Your task to perform on an android device: toggle sleep mode Image 0: 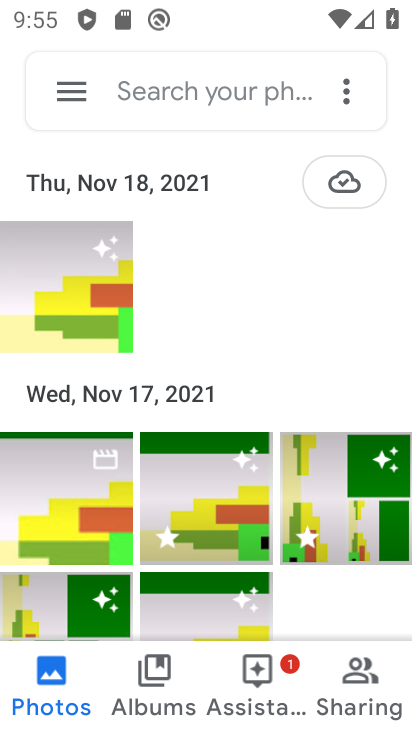
Step 0: press home button
Your task to perform on an android device: toggle sleep mode Image 1: 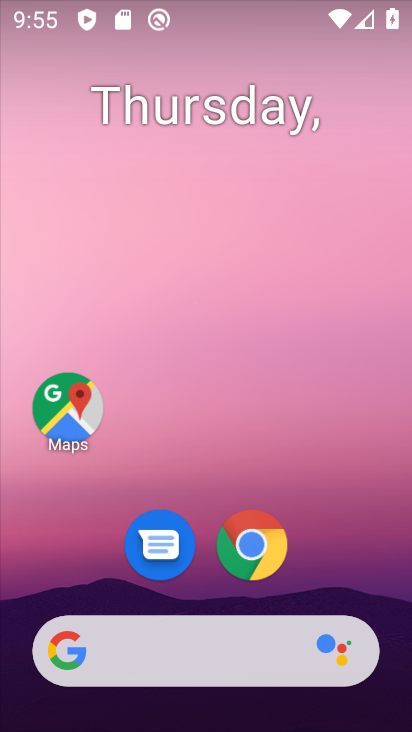
Step 1: drag from (333, 556) to (241, 164)
Your task to perform on an android device: toggle sleep mode Image 2: 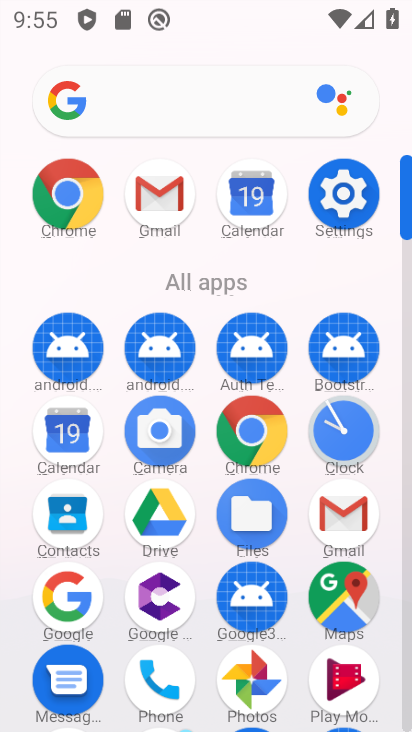
Step 2: click (342, 192)
Your task to perform on an android device: toggle sleep mode Image 3: 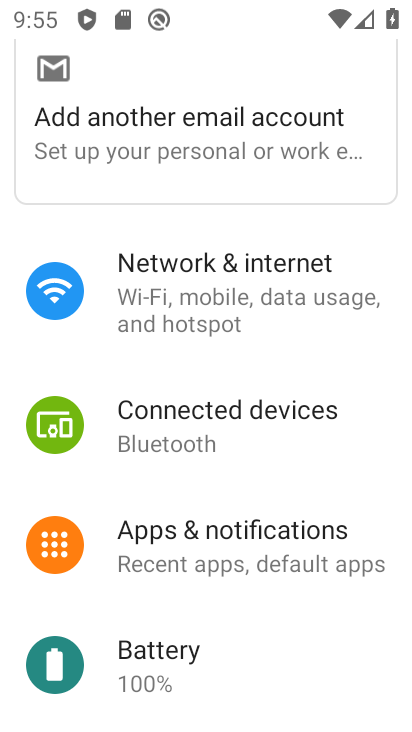
Step 3: drag from (189, 442) to (242, 365)
Your task to perform on an android device: toggle sleep mode Image 4: 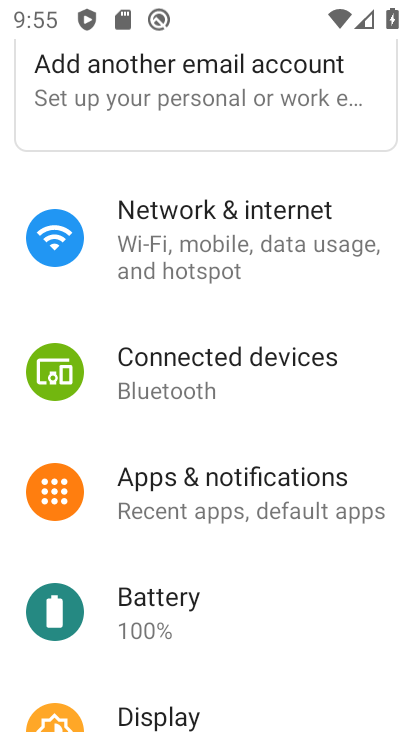
Step 4: drag from (201, 557) to (287, 445)
Your task to perform on an android device: toggle sleep mode Image 5: 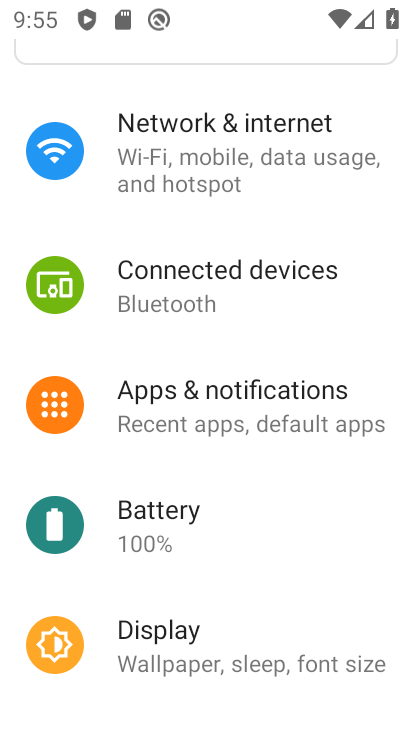
Step 5: drag from (245, 538) to (281, 401)
Your task to perform on an android device: toggle sleep mode Image 6: 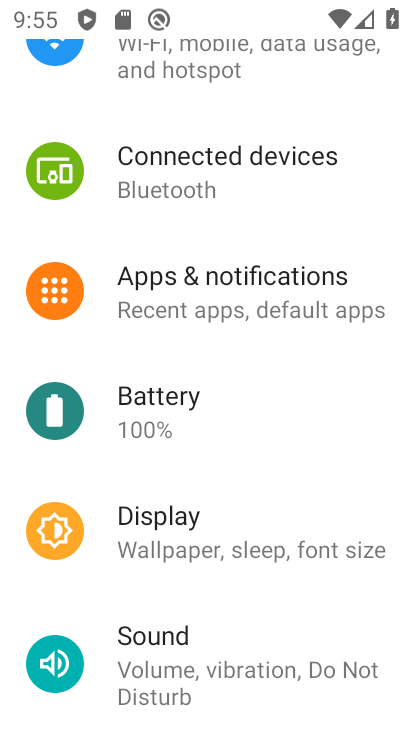
Step 6: drag from (223, 459) to (245, 341)
Your task to perform on an android device: toggle sleep mode Image 7: 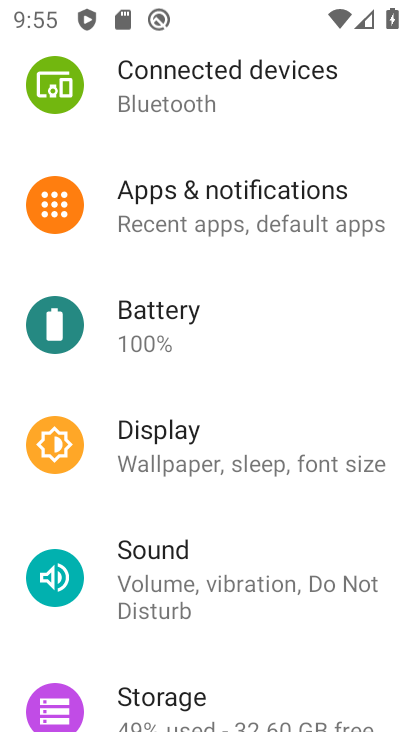
Step 7: click (287, 466)
Your task to perform on an android device: toggle sleep mode Image 8: 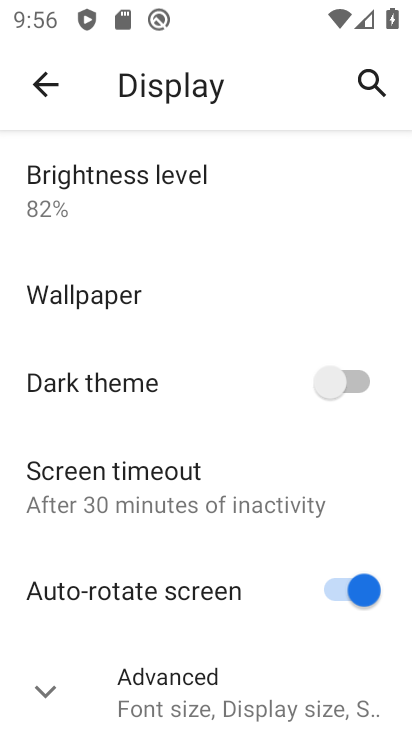
Step 8: drag from (191, 595) to (219, 364)
Your task to perform on an android device: toggle sleep mode Image 9: 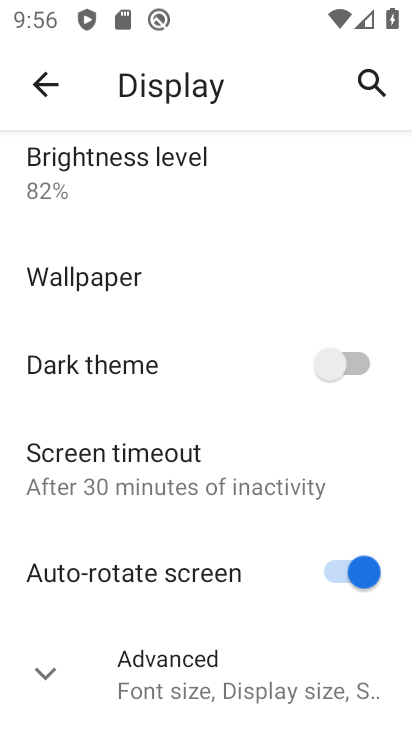
Step 9: click (211, 672)
Your task to perform on an android device: toggle sleep mode Image 10: 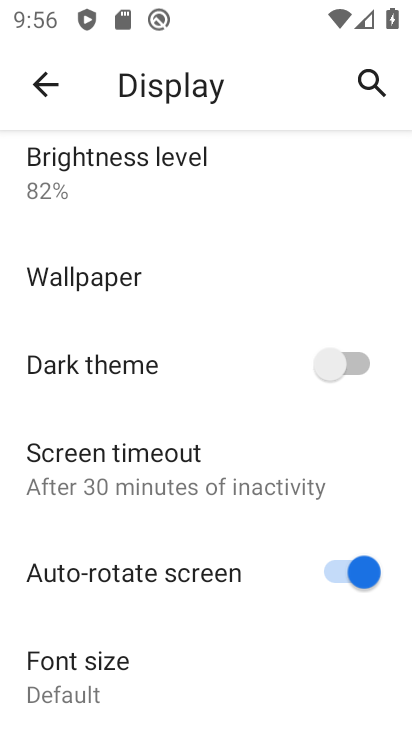
Step 10: task complete